Your task to perform on an android device: empty trash in google photos Image 0: 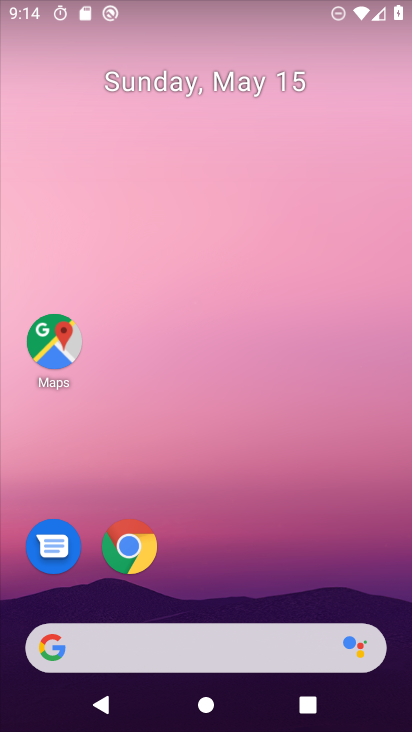
Step 0: drag from (243, 534) to (228, 109)
Your task to perform on an android device: empty trash in google photos Image 1: 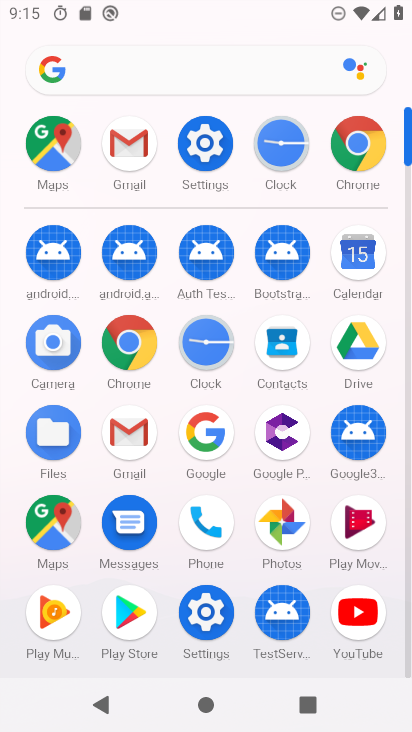
Step 1: click (274, 510)
Your task to perform on an android device: empty trash in google photos Image 2: 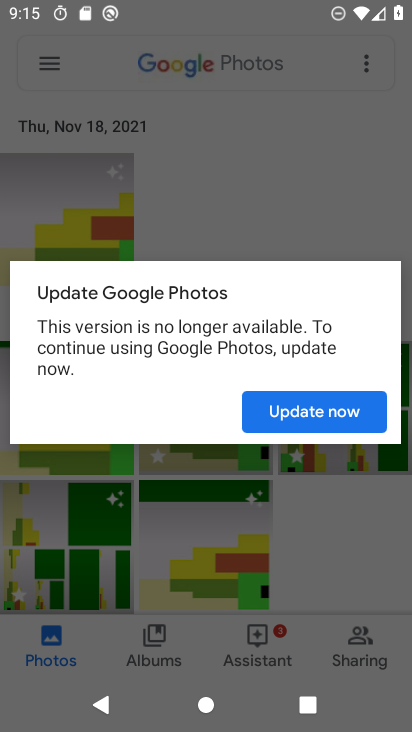
Step 2: click (299, 414)
Your task to perform on an android device: empty trash in google photos Image 3: 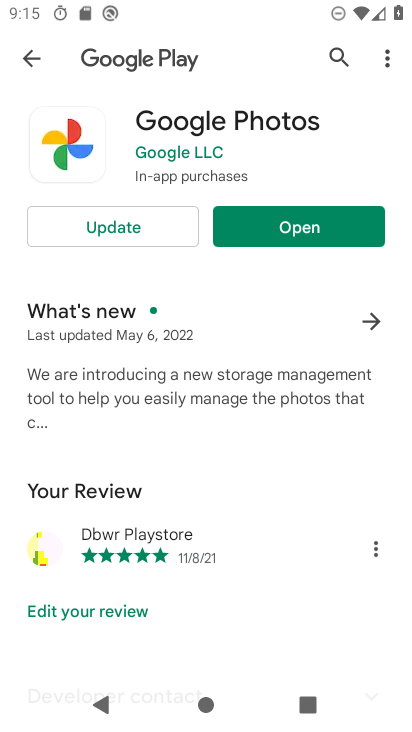
Step 3: click (312, 227)
Your task to perform on an android device: empty trash in google photos Image 4: 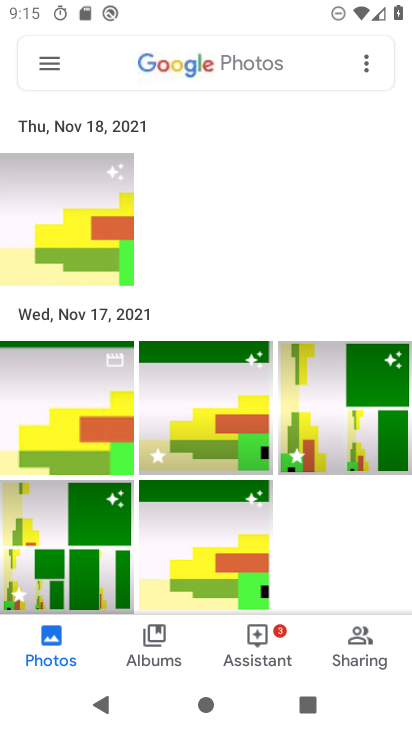
Step 4: click (49, 63)
Your task to perform on an android device: empty trash in google photos Image 5: 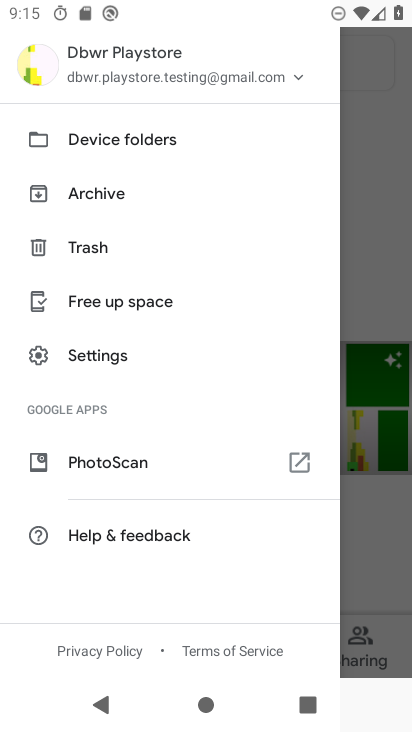
Step 5: click (80, 245)
Your task to perform on an android device: empty trash in google photos Image 6: 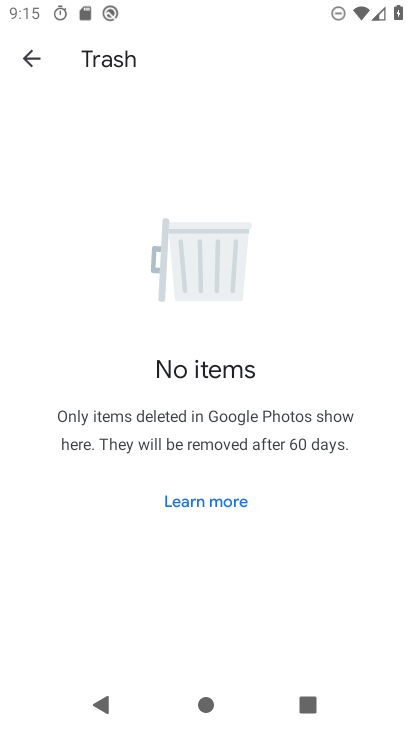
Step 6: task complete